Your task to perform on an android device: toggle location history Image 0: 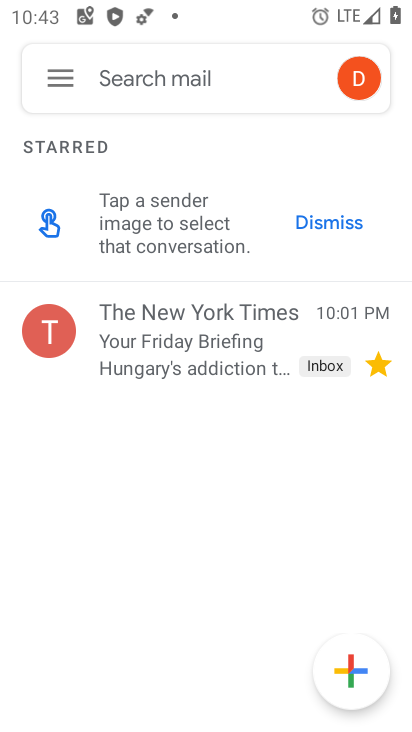
Step 0: press home button
Your task to perform on an android device: toggle location history Image 1: 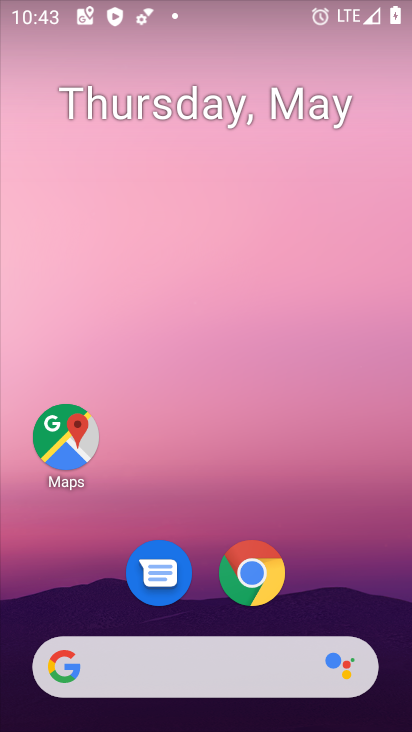
Step 1: drag from (215, 543) to (254, 175)
Your task to perform on an android device: toggle location history Image 2: 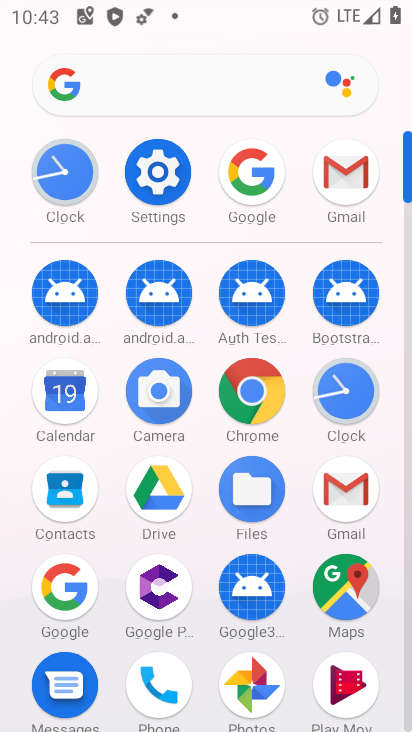
Step 2: click (167, 178)
Your task to perform on an android device: toggle location history Image 3: 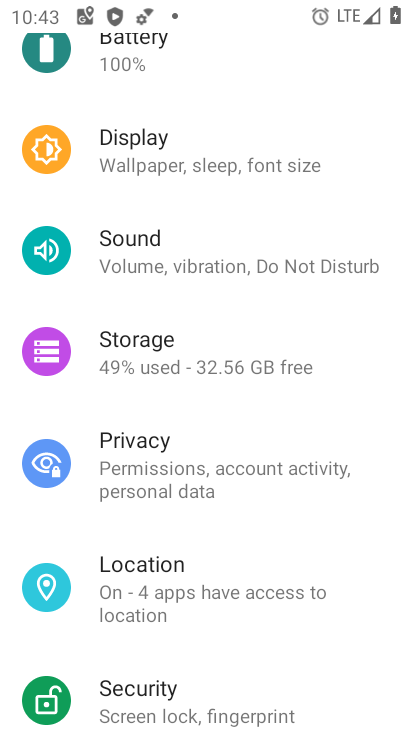
Step 3: click (200, 602)
Your task to perform on an android device: toggle location history Image 4: 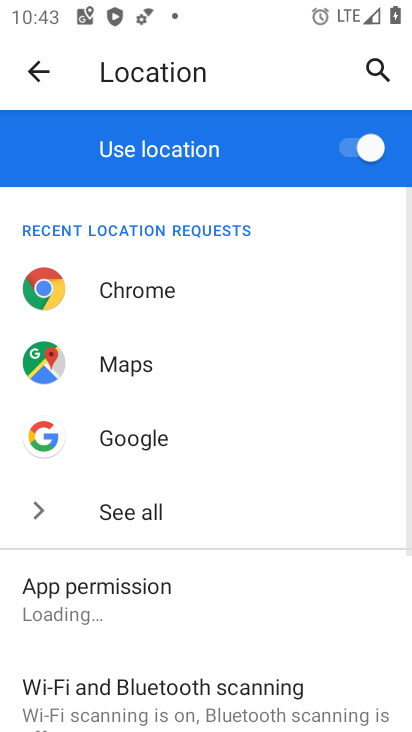
Step 4: drag from (218, 640) to (227, 285)
Your task to perform on an android device: toggle location history Image 5: 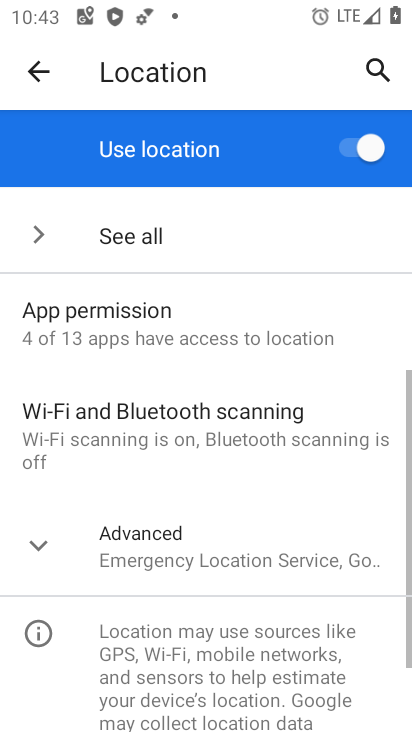
Step 5: click (224, 560)
Your task to perform on an android device: toggle location history Image 6: 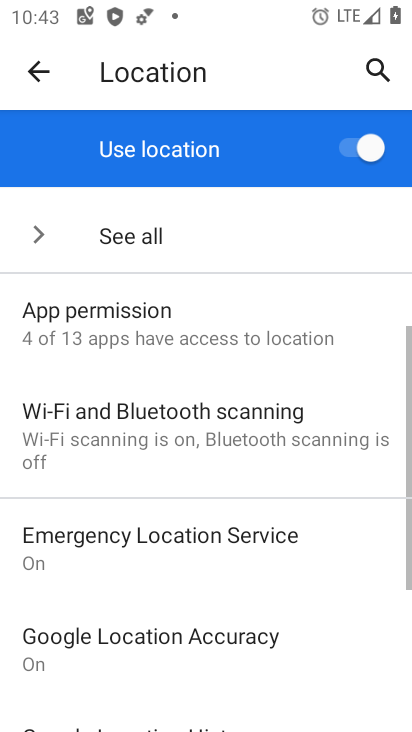
Step 6: drag from (220, 662) to (268, 391)
Your task to perform on an android device: toggle location history Image 7: 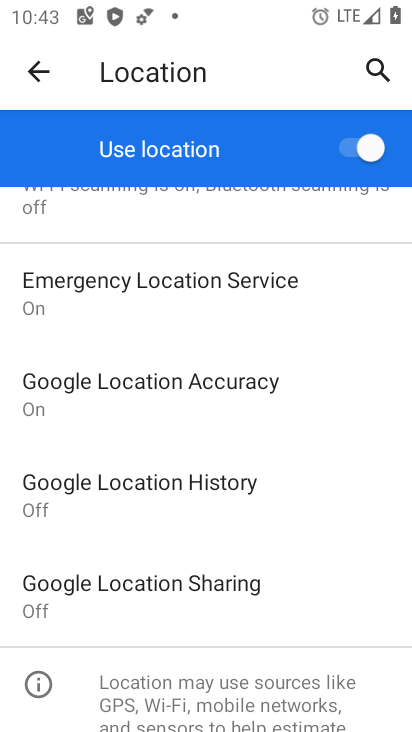
Step 7: click (236, 493)
Your task to perform on an android device: toggle location history Image 8: 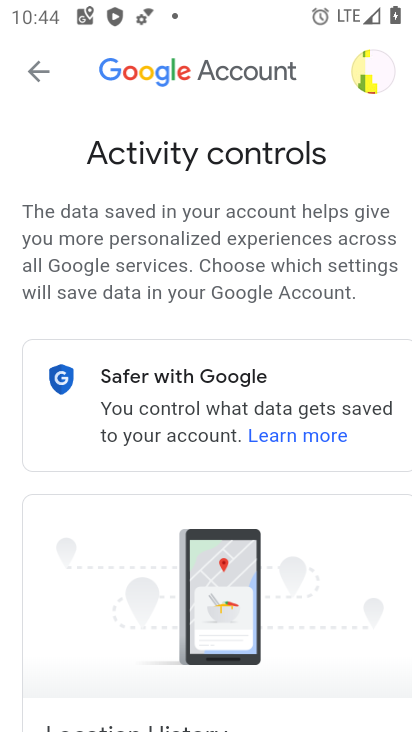
Step 8: drag from (93, 585) to (81, 263)
Your task to perform on an android device: toggle location history Image 9: 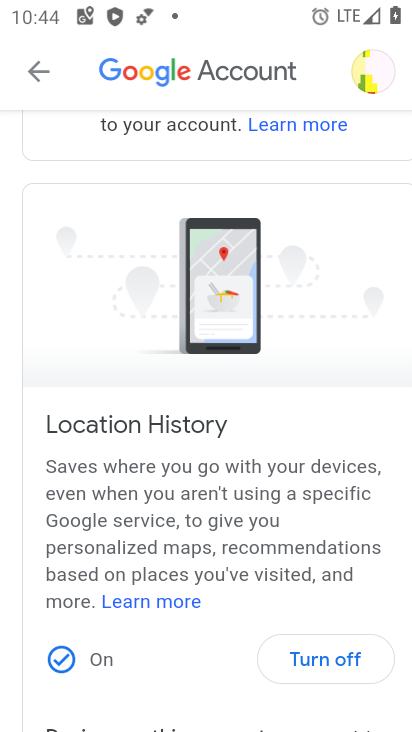
Step 9: click (321, 657)
Your task to perform on an android device: toggle location history Image 10: 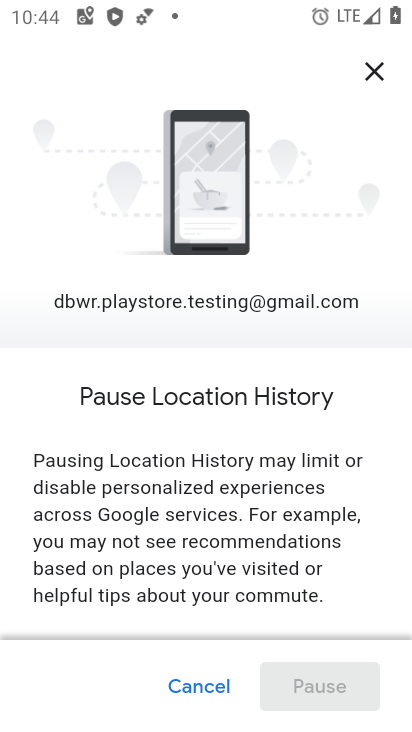
Step 10: drag from (206, 606) to (203, 262)
Your task to perform on an android device: toggle location history Image 11: 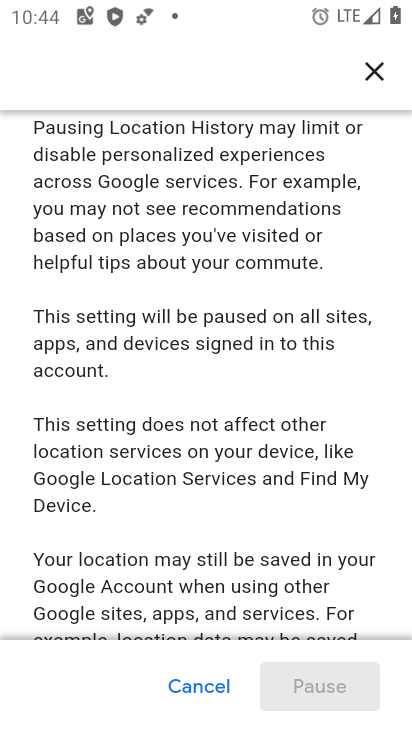
Step 11: drag from (254, 492) to (230, 221)
Your task to perform on an android device: toggle location history Image 12: 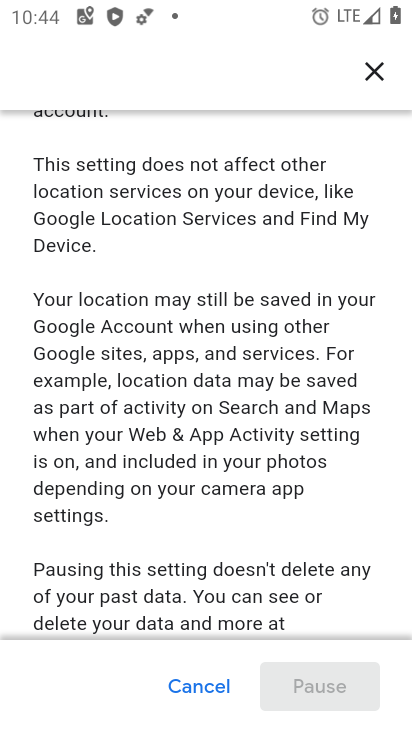
Step 12: drag from (240, 247) to (210, 150)
Your task to perform on an android device: toggle location history Image 13: 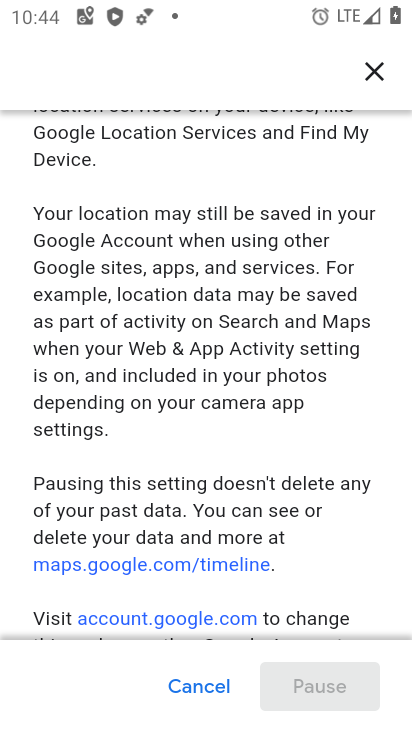
Step 13: drag from (254, 521) to (242, 264)
Your task to perform on an android device: toggle location history Image 14: 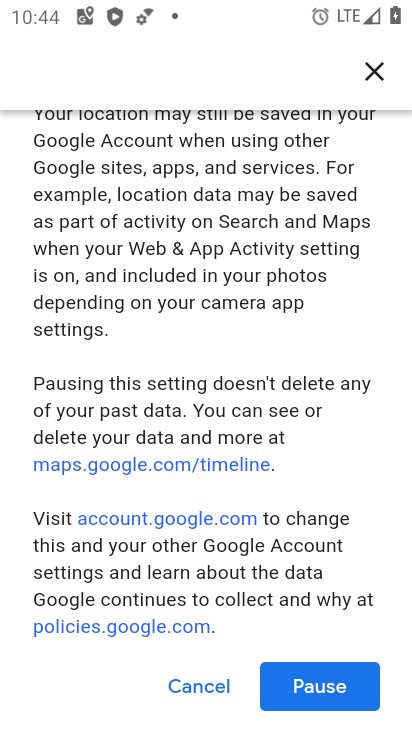
Step 14: drag from (281, 474) to (277, 198)
Your task to perform on an android device: toggle location history Image 15: 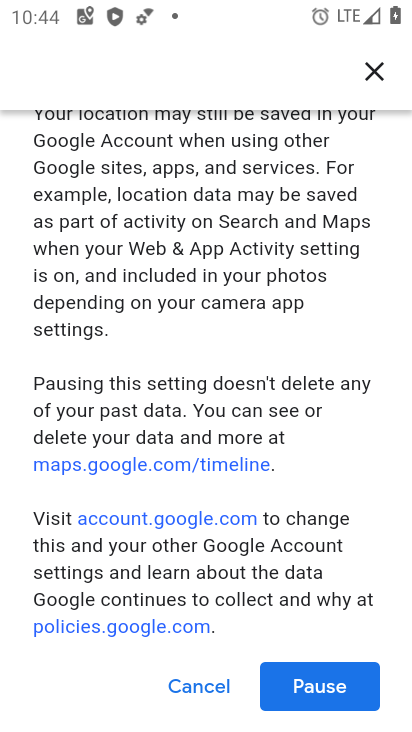
Step 15: click (340, 672)
Your task to perform on an android device: toggle location history Image 16: 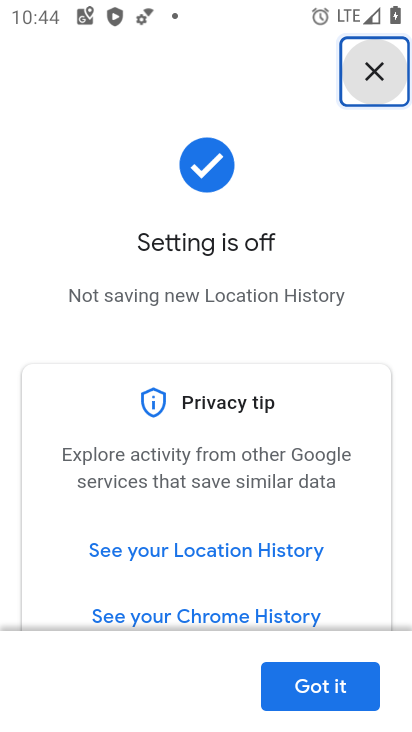
Step 16: task complete